Your task to perform on an android device: Open calendar and show me the fourth week of next month Image 0: 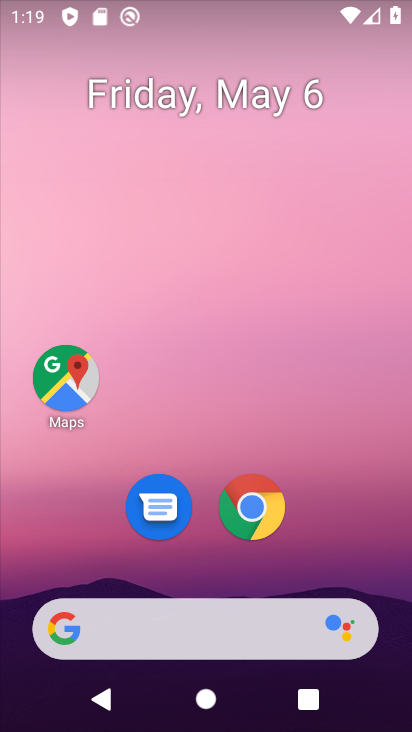
Step 0: drag from (139, 593) to (253, 56)
Your task to perform on an android device: Open calendar and show me the fourth week of next month Image 1: 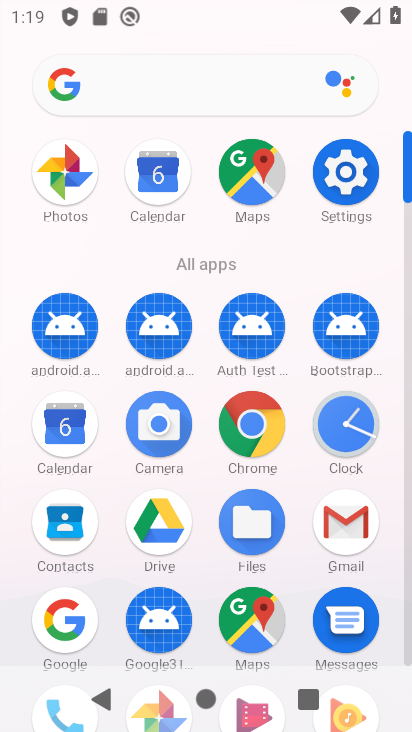
Step 1: click (74, 449)
Your task to perform on an android device: Open calendar and show me the fourth week of next month Image 2: 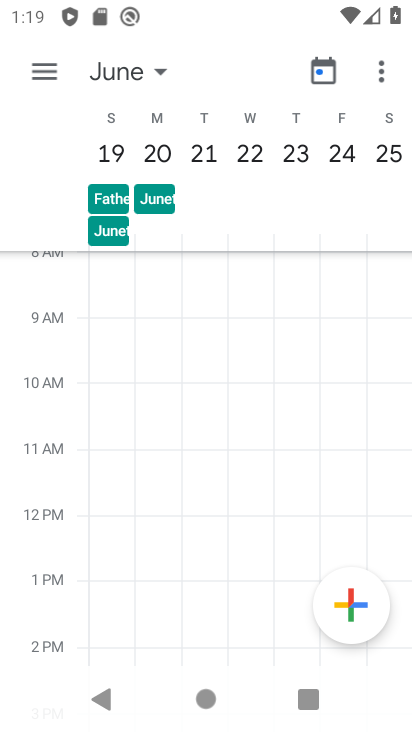
Step 2: click (120, 75)
Your task to perform on an android device: Open calendar and show me the fourth week of next month Image 3: 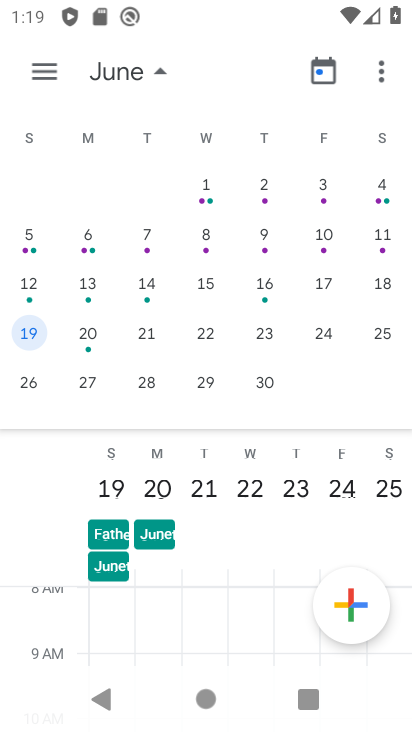
Step 3: click (35, 388)
Your task to perform on an android device: Open calendar and show me the fourth week of next month Image 4: 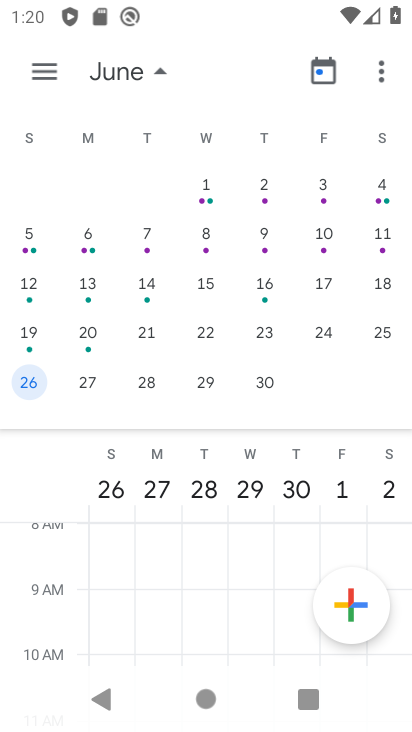
Step 4: click (158, 69)
Your task to perform on an android device: Open calendar and show me the fourth week of next month Image 5: 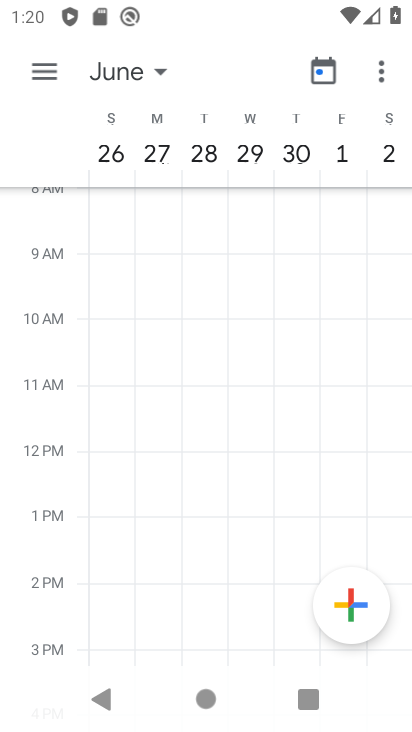
Step 5: task complete